Your task to perform on an android device: clear history in the chrome app Image 0: 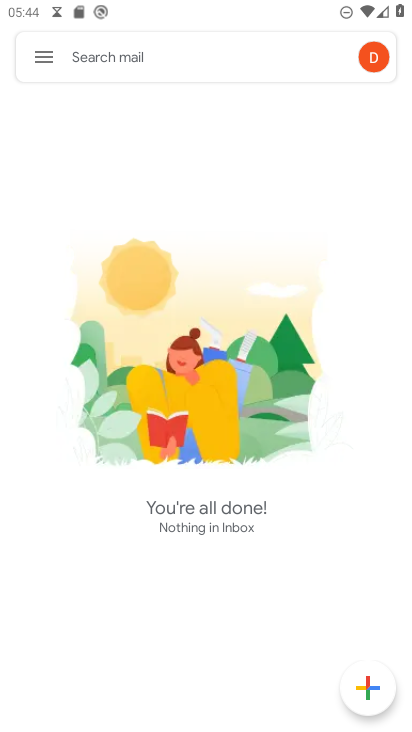
Step 0: press home button
Your task to perform on an android device: clear history in the chrome app Image 1: 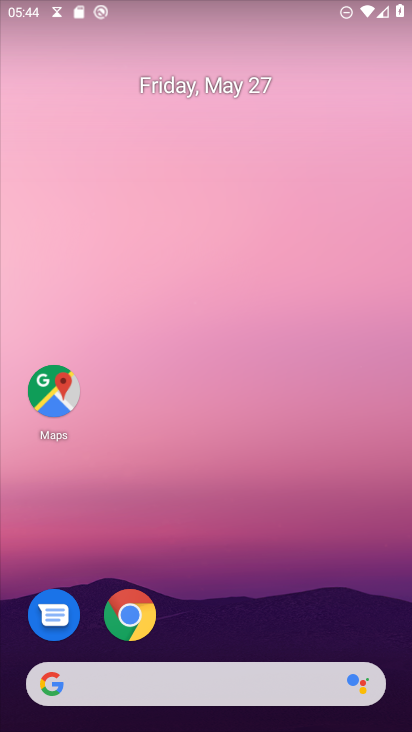
Step 1: click (138, 610)
Your task to perform on an android device: clear history in the chrome app Image 2: 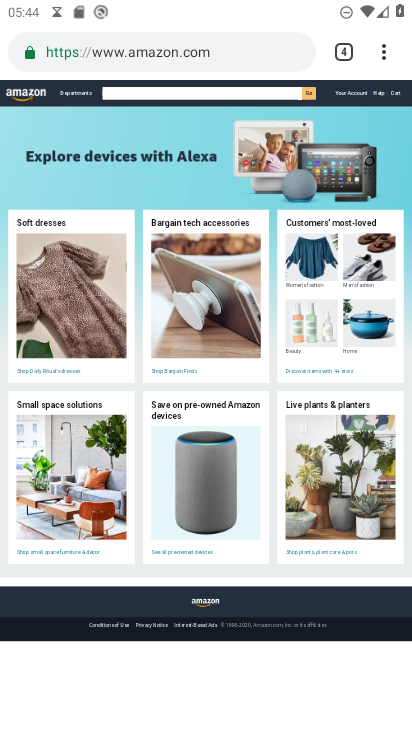
Step 2: click (381, 52)
Your task to perform on an android device: clear history in the chrome app Image 3: 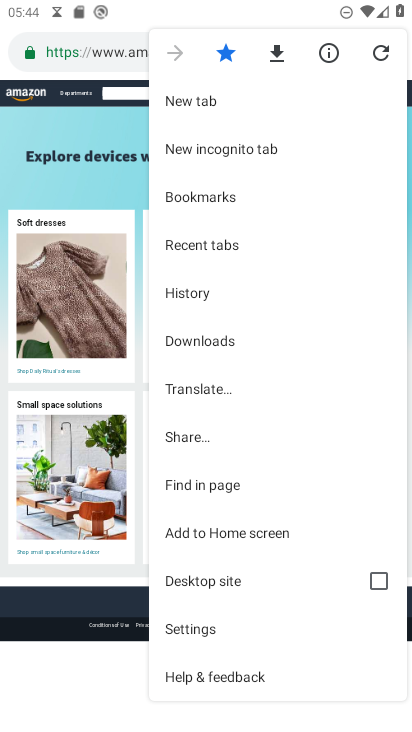
Step 3: click (223, 282)
Your task to perform on an android device: clear history in the chrome app Image 4: 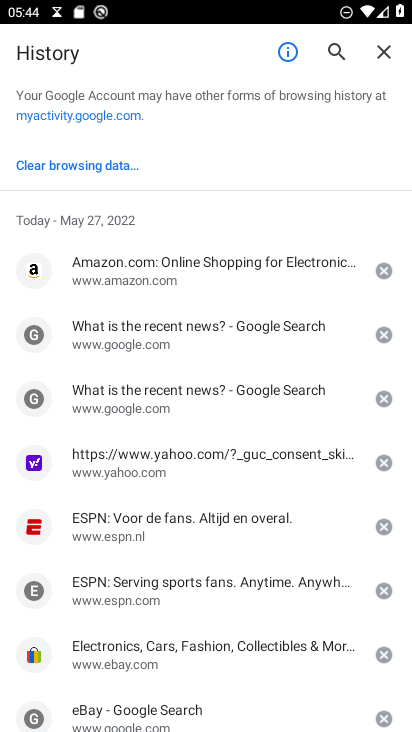
Step 4: click (101, 168)
Your task to perform on an android device: clear history in the chrome app Image 5: 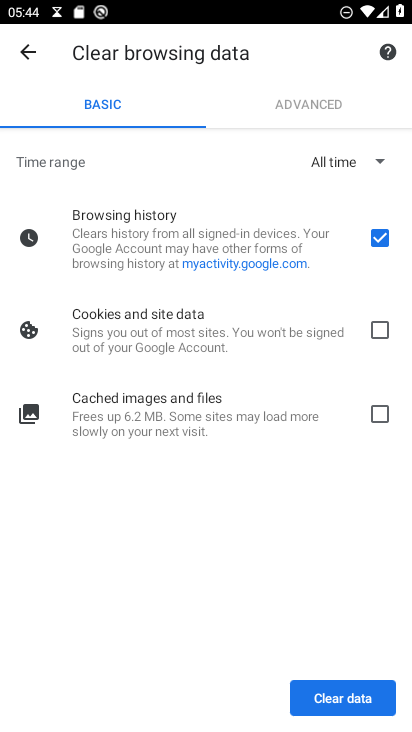
Step 5: click (343, 693)
Your task to perform on an android device: clear history in the chrome app Image 6: 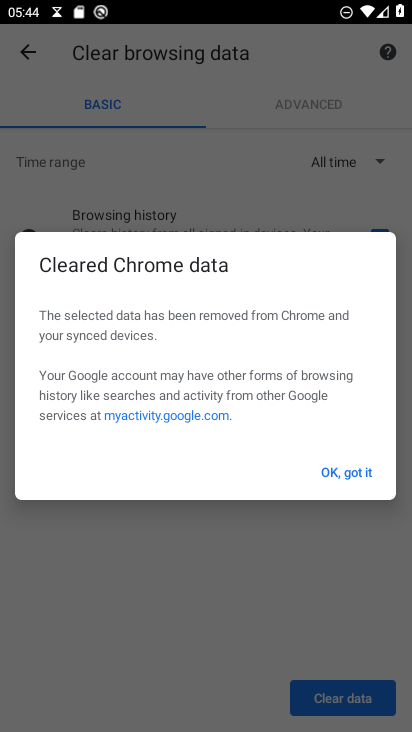
Step 6: click (349, 472)
Your task to perform on an android device: clear history in the chrome app Image 7: 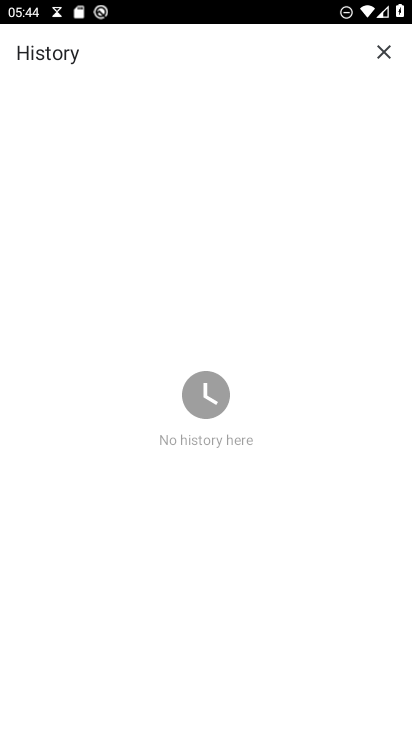
Step 7: task complete